Your task to perform on an android device: Open display settings Image 0: 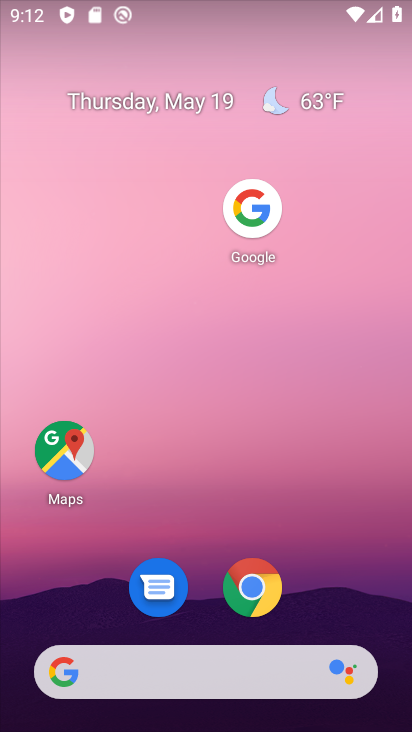
Step 0: drag from (169, 630) to (145, 13)
Your task to perform on an android device: Open display settings Image 1: 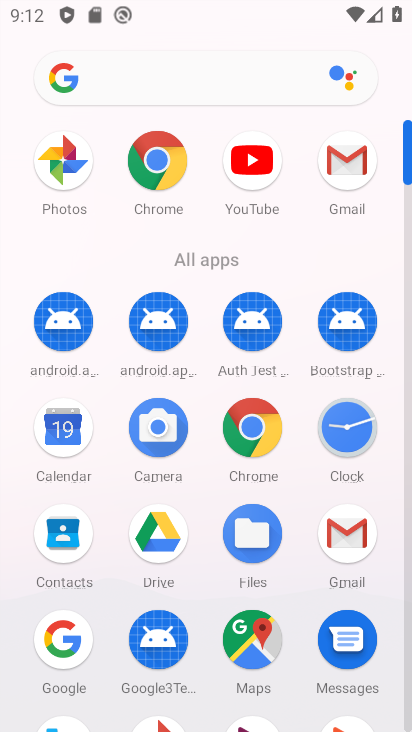
Step 1: drag from (206, 528) to (188, 191)
Your task to perform on an android device: Open display settings Image 2: 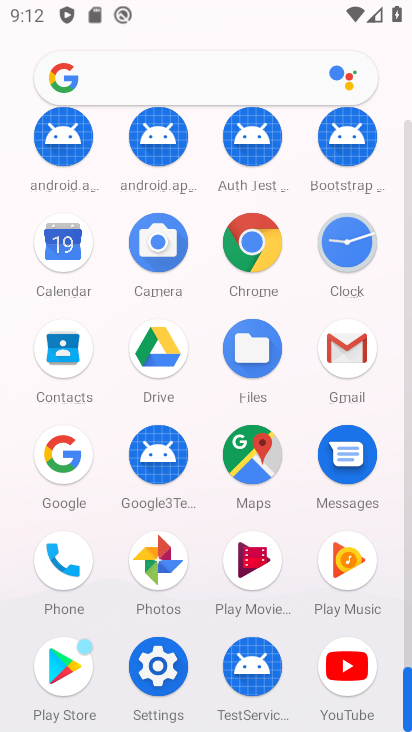
Step 2: click (180, 666)
Your task to perform on an android device: Open display settings Image 3: 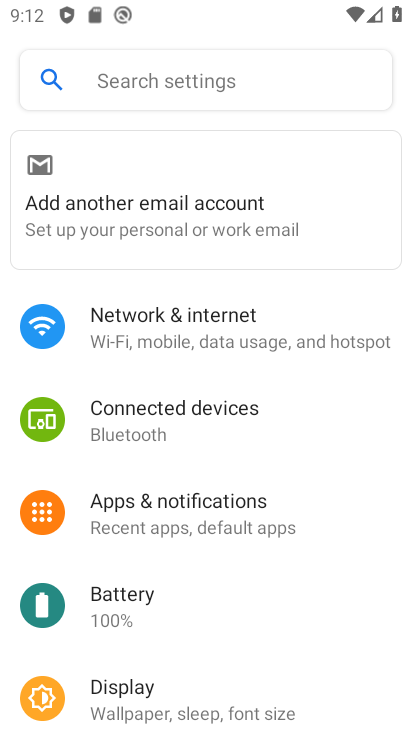
Step 3: click (132, 681)
Your task to perform on an android device: Open display settings Image 4: 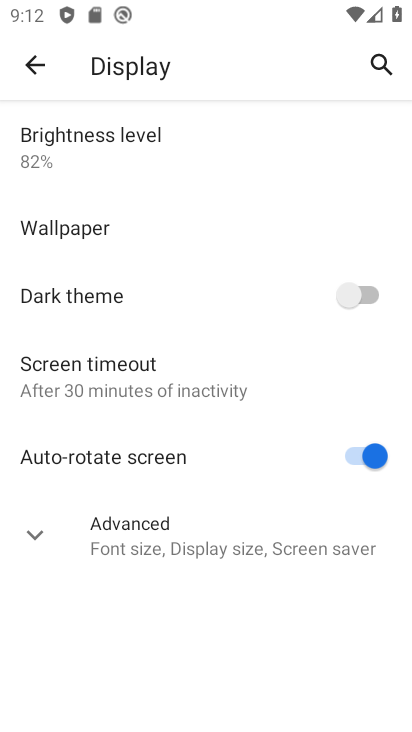
Step 4: task complete